Your task to perform on an android device: Open my contact list Image 0: 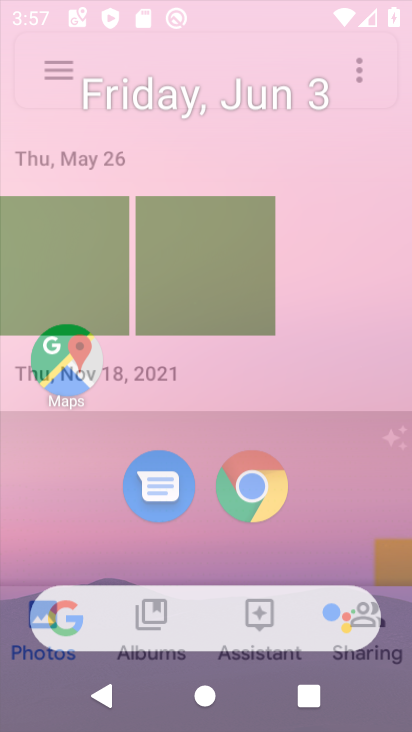
Step 0: drag from (192, 525) to (222, 27)
Your task to perform on an android device: Open my contact list Image 1: 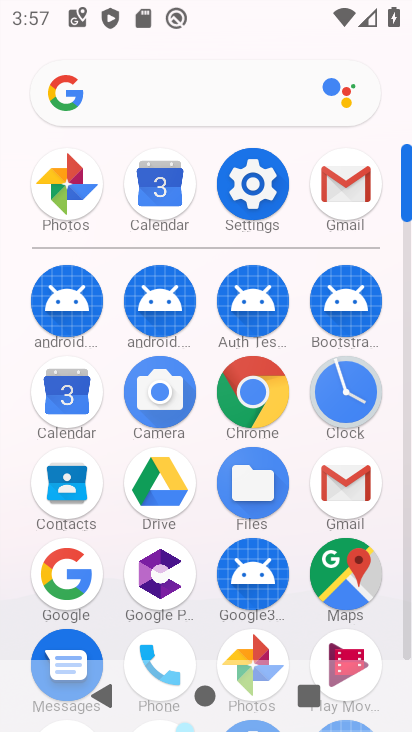
Step 1: drag from (194, 602) to (222, 157)
Your task to perform on an android device: Open my contact list Image 2: 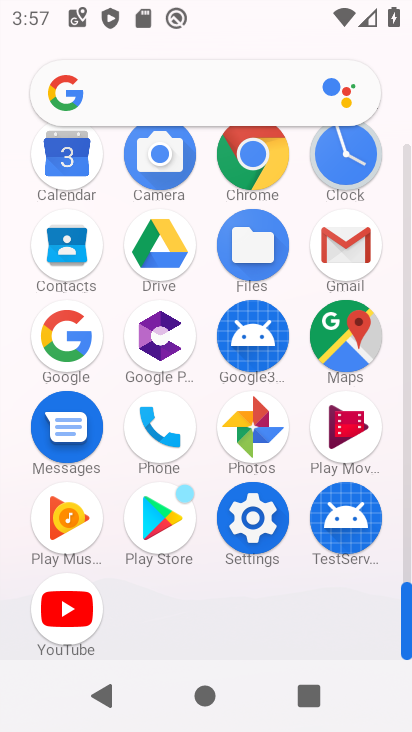
Step 2: click (68, 247)
Your task to perform on an android device: Open my contact list Image 3: 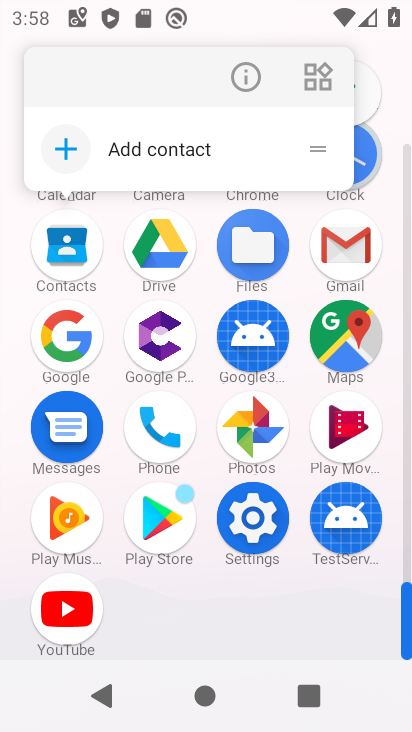
Step 3: click (241, 68)
Your task to perform on an android device: Open my contact list Image 4: 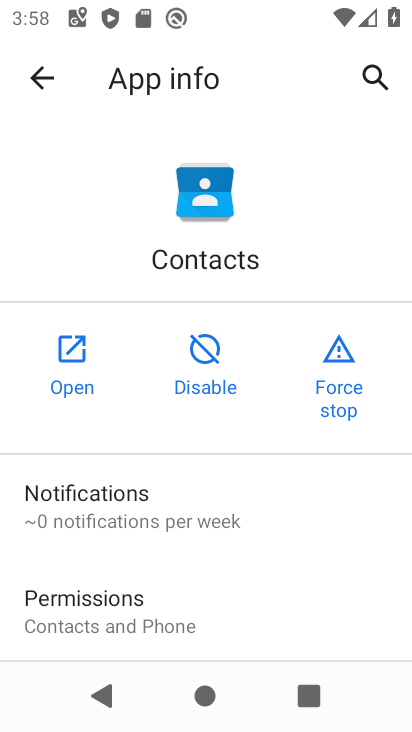
Step 4: click (76, 346)
Your task to perform on an android device: Open my contact list Image 5: 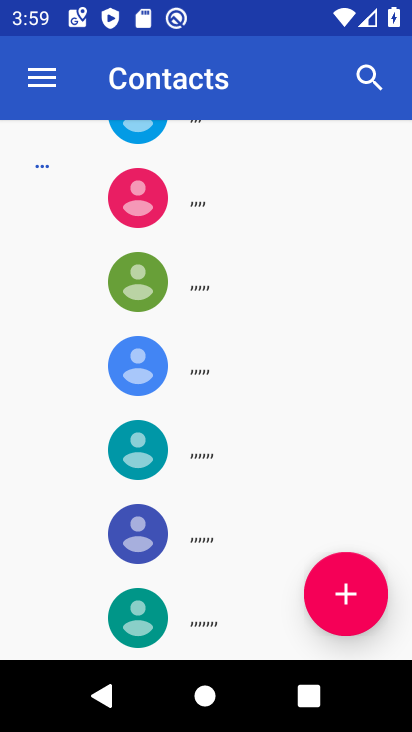
Step 5: task complete